Your task to perform on an android device: turn on the 12-hour format for clock Image 0: 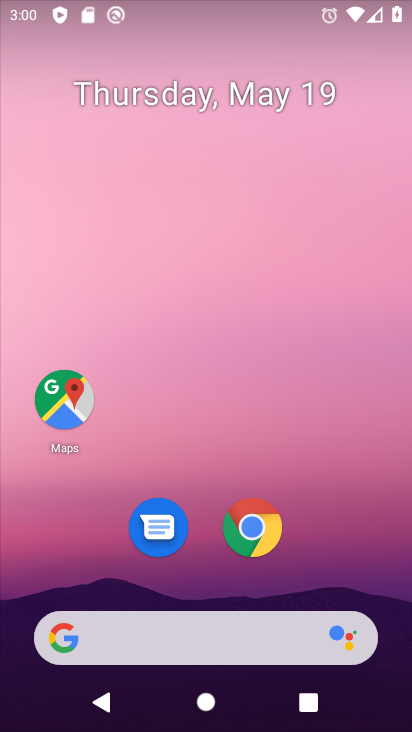
Step 0: drag from (195, 494) to (279, 2)
Your task to perform on an android device: turn on the 12-hour format for clock Image 1: 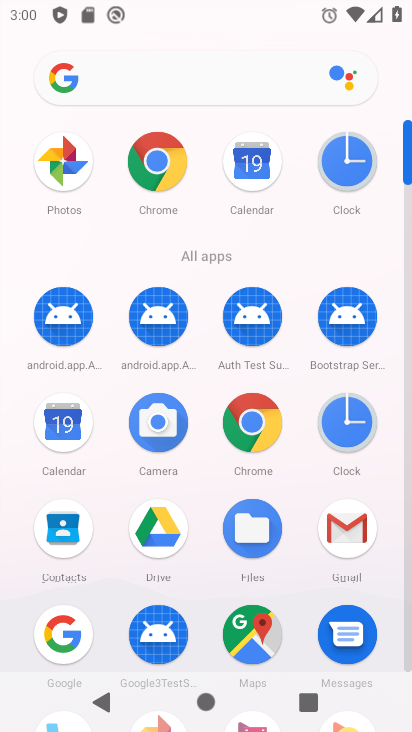
Step 1: click (342, 431)
Your task to perform on an android device: turn on the 12-hour format for clock Image 2: 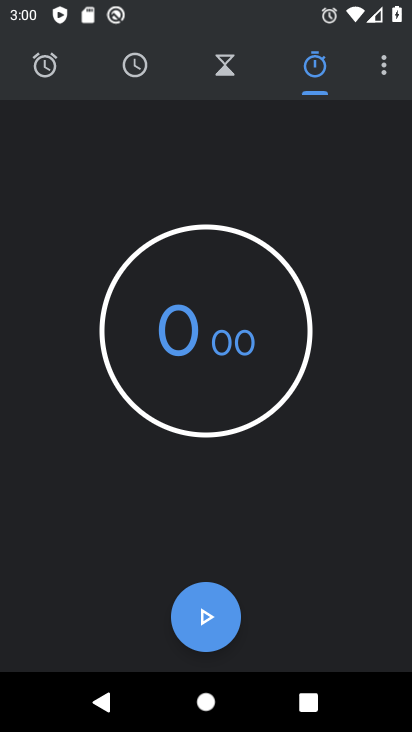
Step 2: drag from (385, 61) to (312, 163)
Your task to perform on an android device: turn on the 12-hour format for clock Image 3: 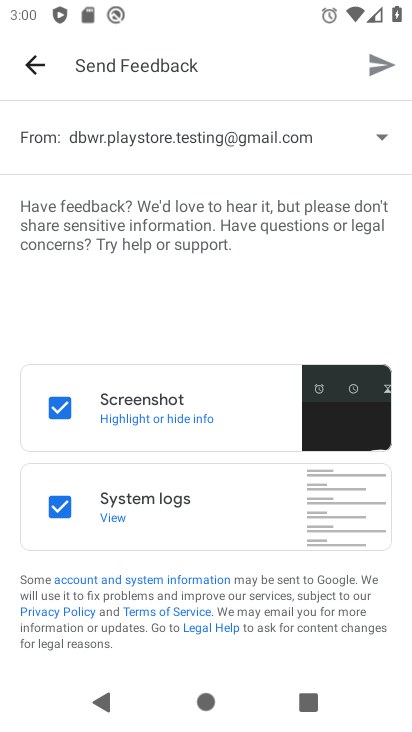
Step 3: press back button
Your task to perform on an android device: turn on the 12-hour format for clock Image 4: 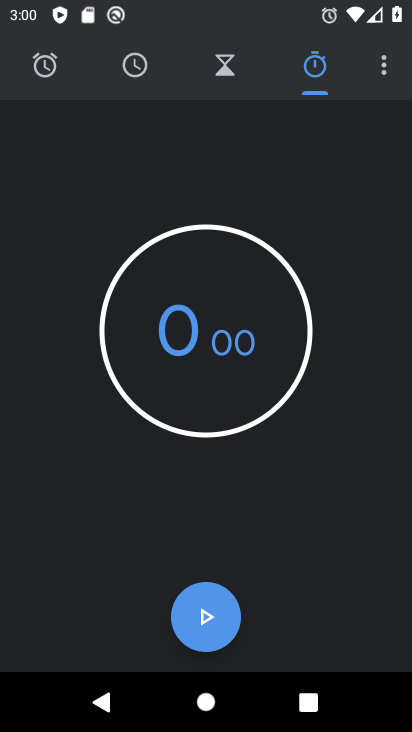
Step 4: click (381, 63)
Your task to perform on an android device: turn on the 12-hour format for clock Image 5: 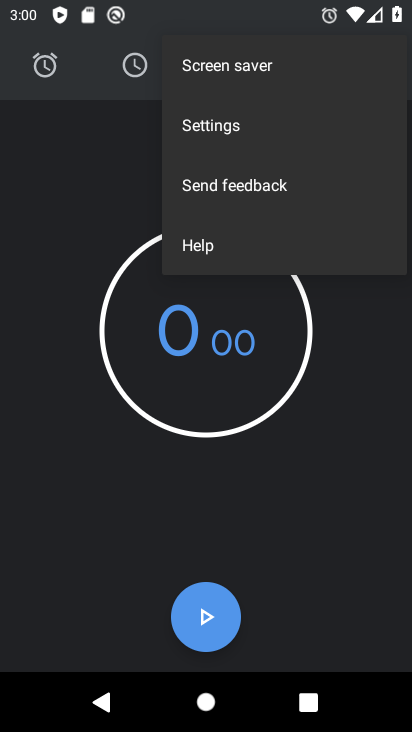
Step 5: click (223, 144)
Your task to perform on an android device: turn on the 12-hour format for clock Image 6: 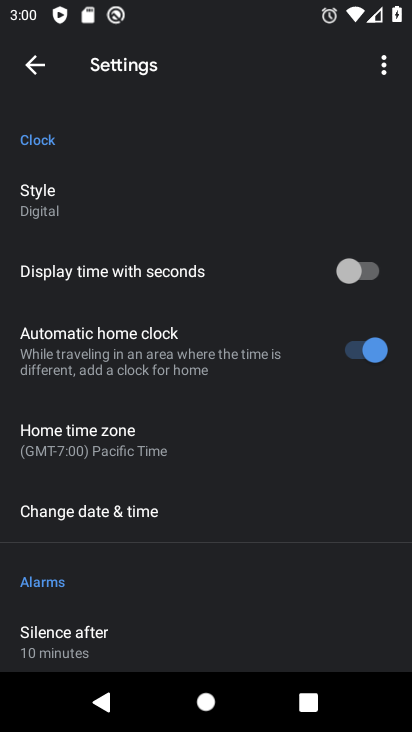
Step 6: click (142, 526)
Your task to perform on an android device: turn on the 12-hour format for clock Image 7: 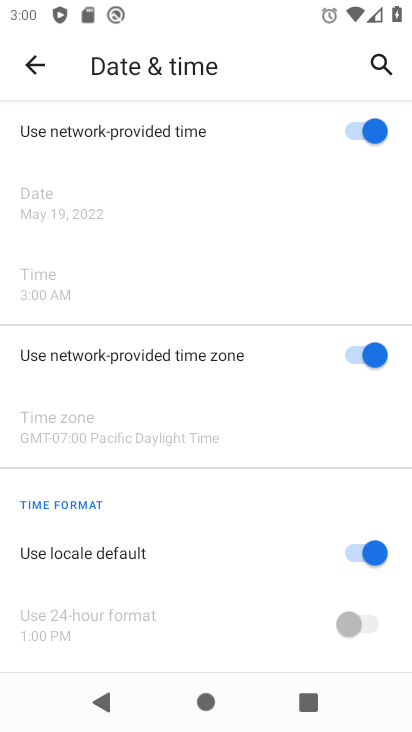
Step 7: task complete